Your task to perform on an android device: Open Google Chrome and open the bookmarks view Image 0: 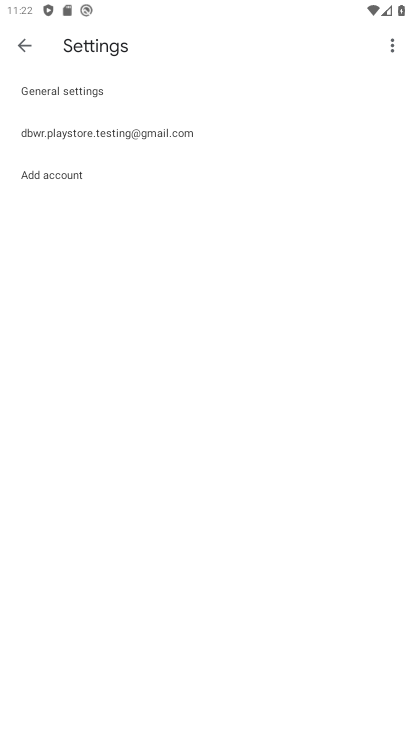
Step 0: press home button
Your task to perform on an android device: Open Google Chrome and open the bookmarks view Image 1: 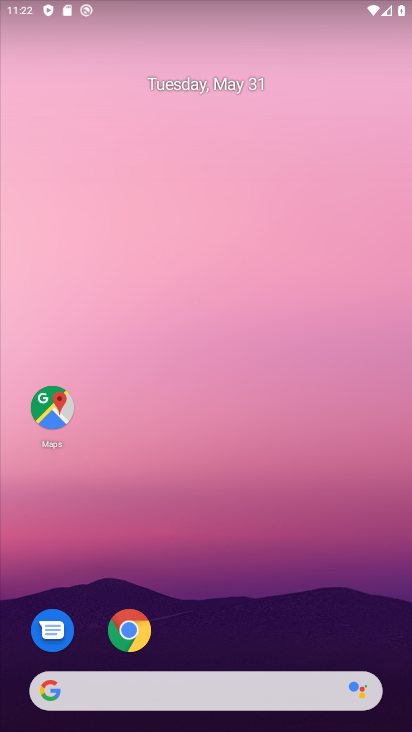
Step 1: click (129, 634)
Your task to perform on an android device: Open Google Chrome and open the bookmarks view Image 2: 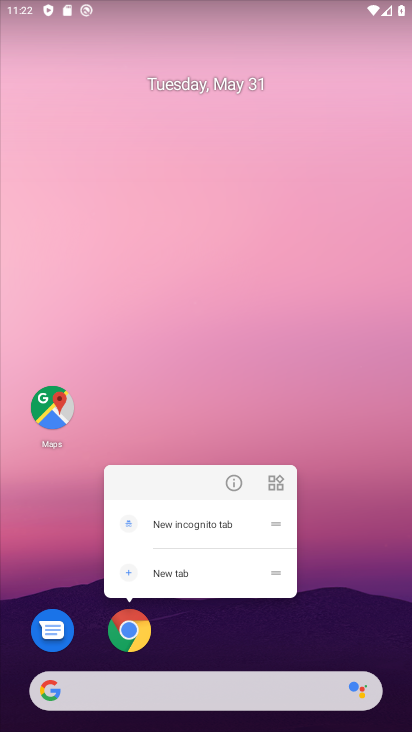
Step 2: click (129, 634)
Your task to perform on an android device: Open Google Chrome and open the bookmarks view Image 3: 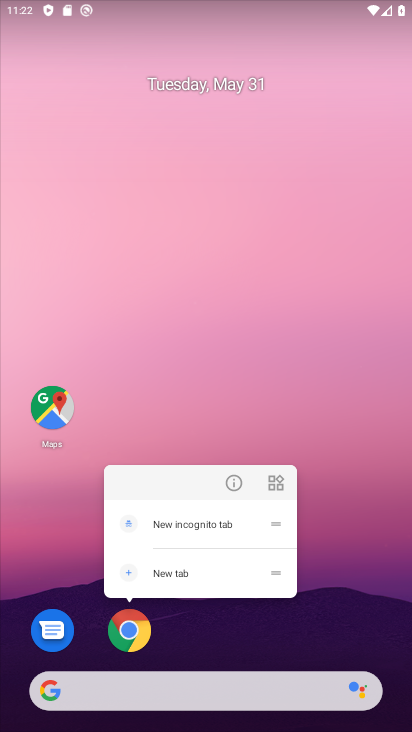
Step 3: click (122, 631)
Your task to perform on an android device: Open Google Chrome and open the bookmarks view Image 4: 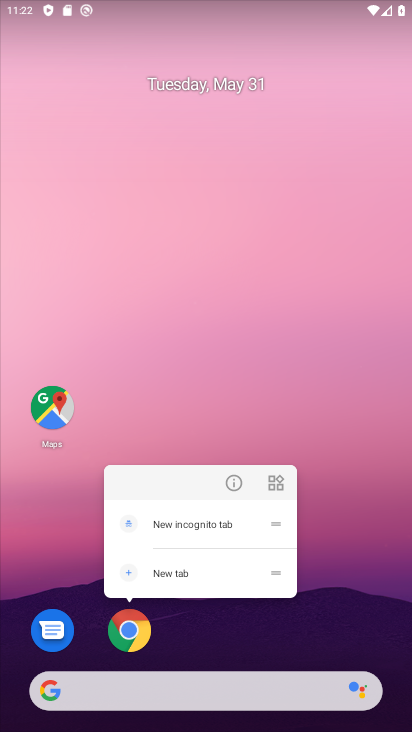
Step 4: click (119, 639)
Your task to perform on an android device: Open Google Chrome and open the bookmarks view Image 5: 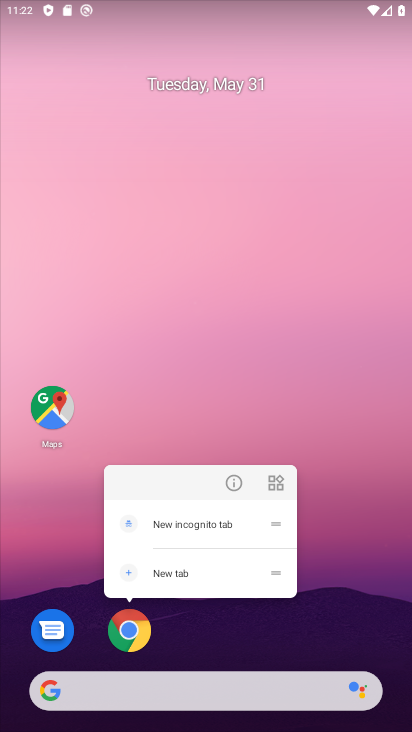
Step 5: click (117, 637)
Your task to perform on an android device: Open Google Chrome and open the bookmarks view Image 6: 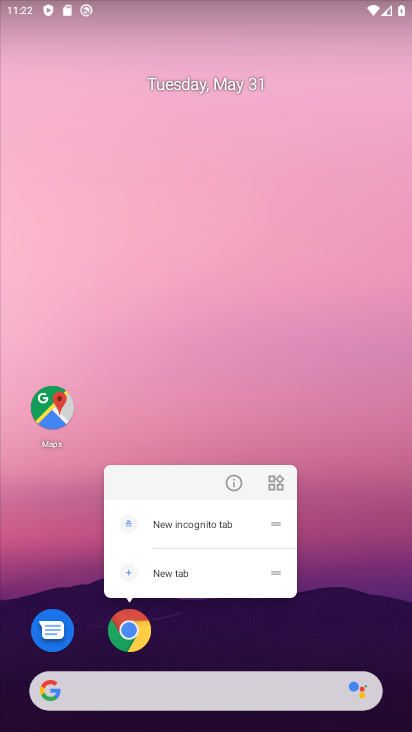
Step 6: click (122, 639)
Your task to perform on an android device: Open Google Chrome and open the bookmarks view Image 7: 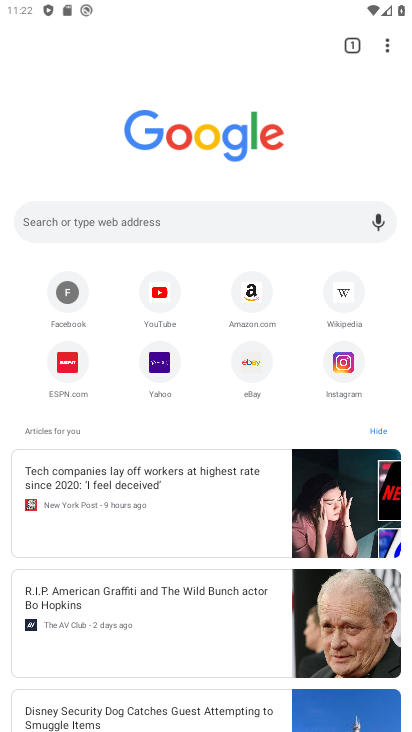
Step 7: task complete